Your task to perform on an android device: refresh tabs in the chrome app Image 0: 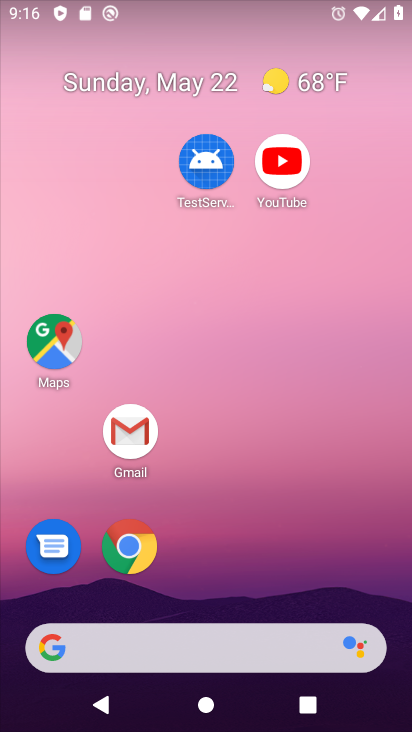
Step 0: drag from (265, 726) to (326, 111)
Your task to perform on an android device: refresh tabs in the chrome app Image 1: 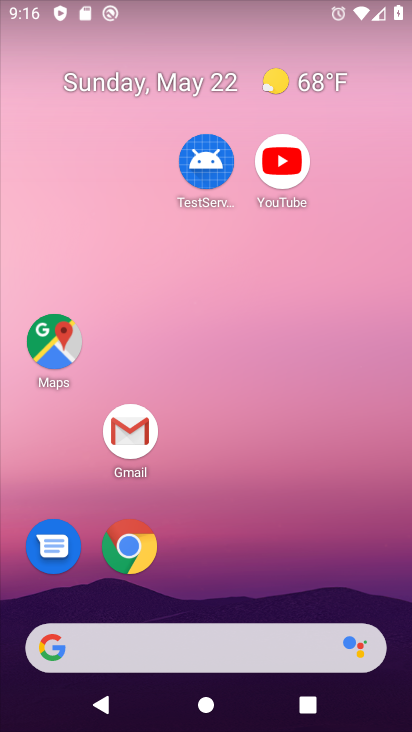
Step 1: drag from (253, 663) to (241, 149)
Your task to perform on an android device: refresh tabs in the chrome app Image 2: 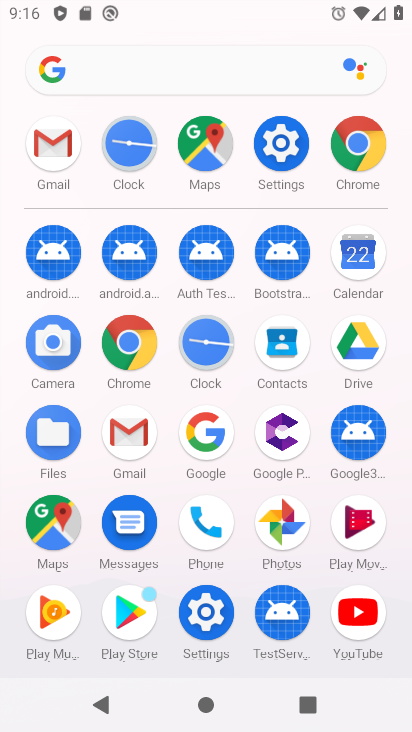
Step 2: click (346, 143)
Your task to perform on an android device: refresh tabs in the chrome app Image 3: 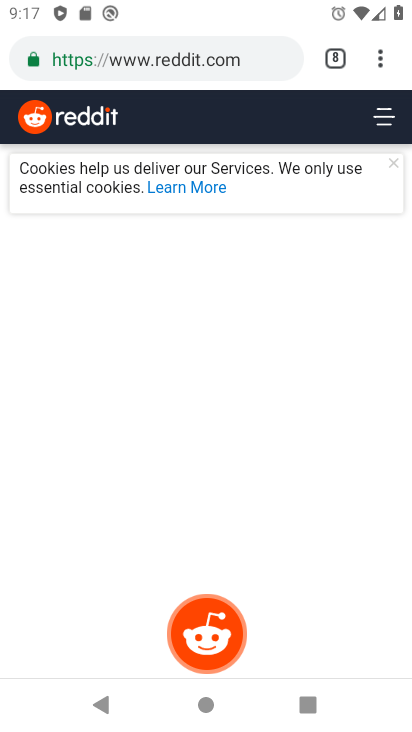
Step 3: press back button
Your task to perform on an android device: refresh tabs in the chrome app Image 4: 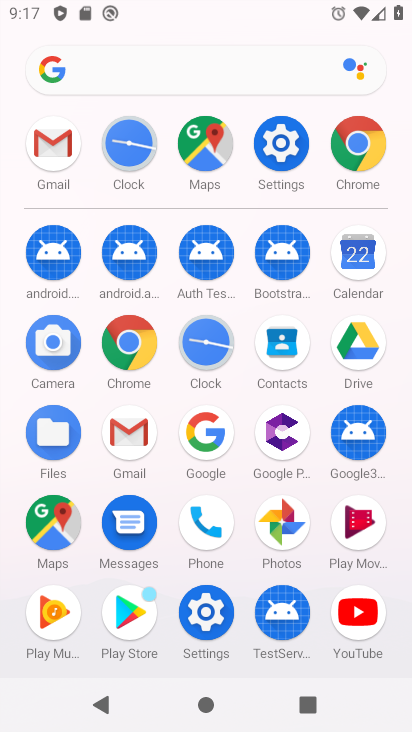
Step 4: click (356, 135)
Your task to perform on an android device: refresh tabs in the chrome app Image 5: 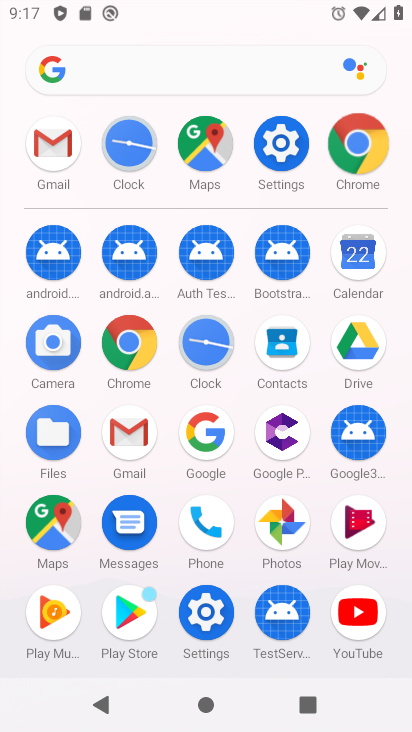
Step 5: click (356, 135)
Your task to perform on an android device: refresh tabs in the chrome app Image 6: 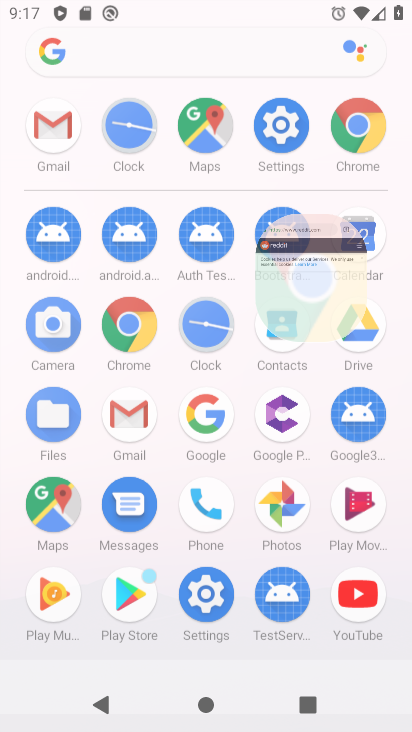
Step 6: click (349, 143)
Your task to perform on an android device: refresh tabs in the chrome app Image 7: 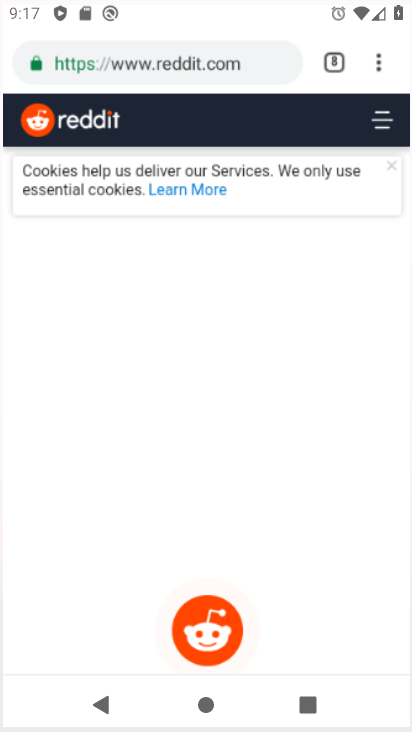
Step 7: click (349, 143)
Your task to perform on an android device: refresh tabs in the chrome app Image 8: 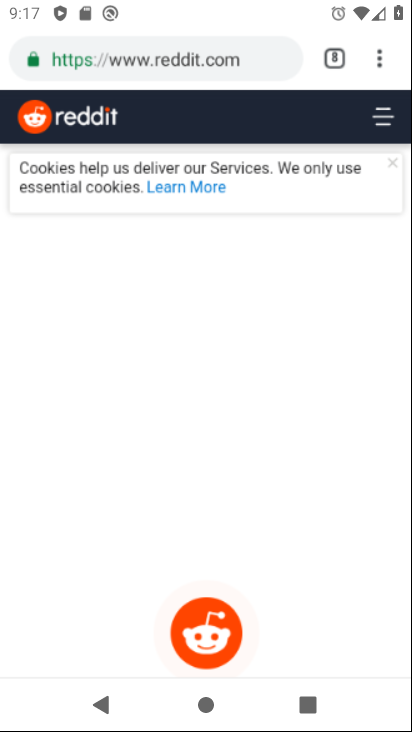
Step 8: click (349, 143)
Your task to perform on an android device: refresh tabs in the chrome app Image 9: 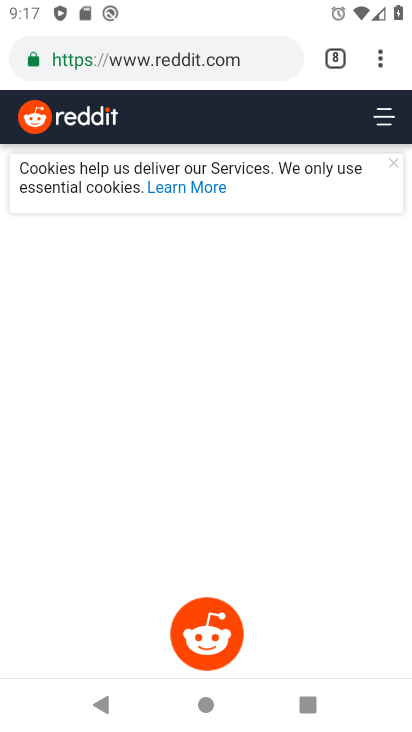
Step 9: click (374, 57)
Your task to perform on an android device: refresh tabs in the chrome app Image 10: 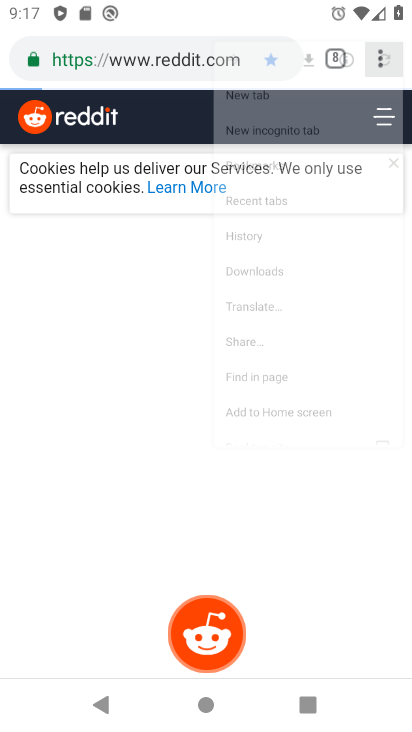
Step 10: click (372, 53)
Your task to perform on an android device: refresh tabs in the chrome app Image 11: 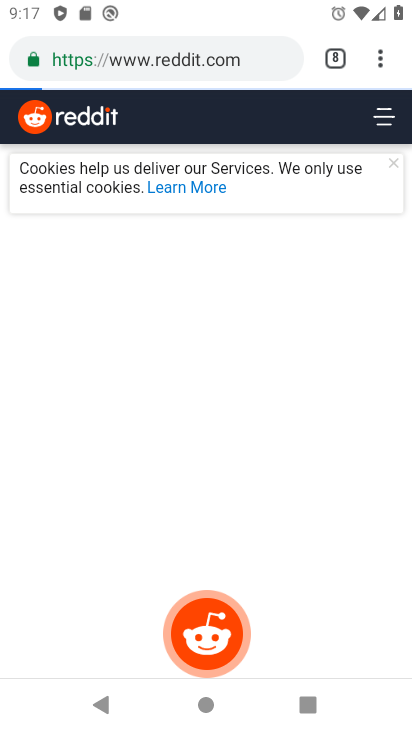
Step 11: click (372, 53)
Your task to perform on an android device: refresh tabs in the chrome app Image 12: 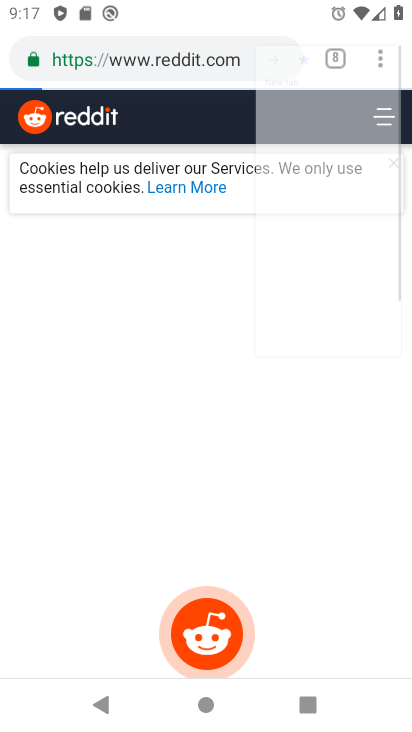
Step 12: click (372, 53)
Your task to perform on an android device: refresh tabs in the chrome app Image 13: 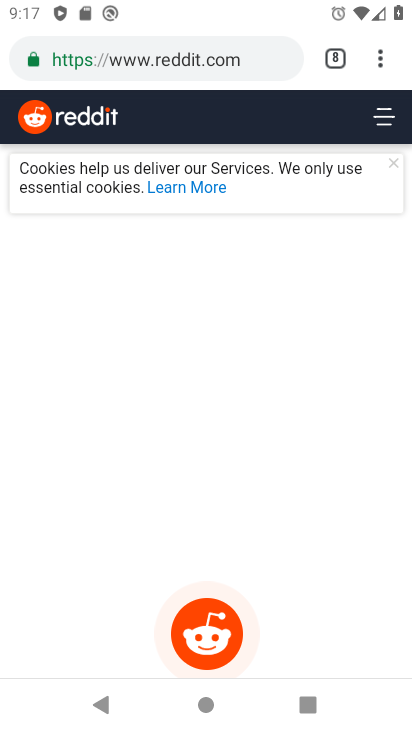
Step 13: task complete